Your task to perform on an android device: Clear the shopping cart on newegg.com. Image 0: 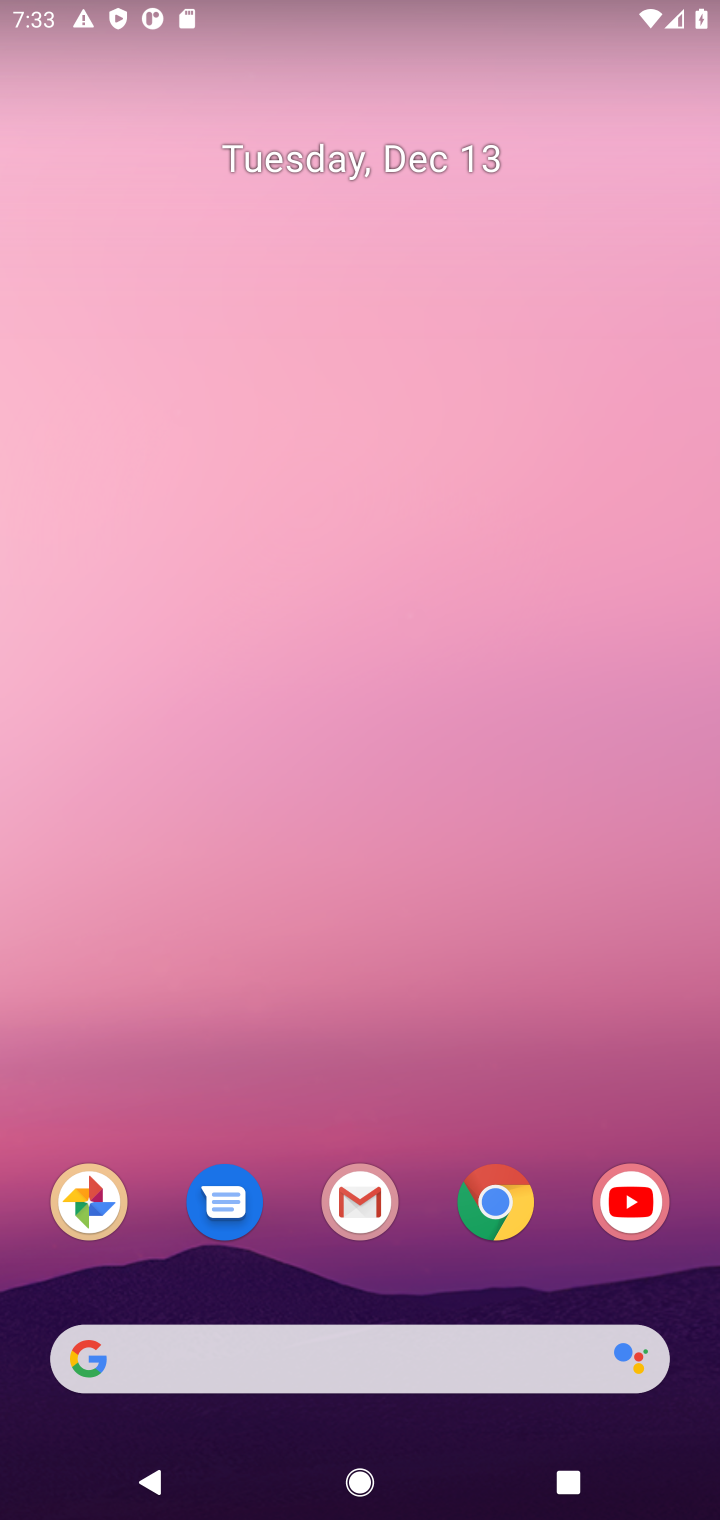
Step 0: click (500, 1211)
Your task to perform on an android device: Clear the shopping cart on newegg.com. Image 1: 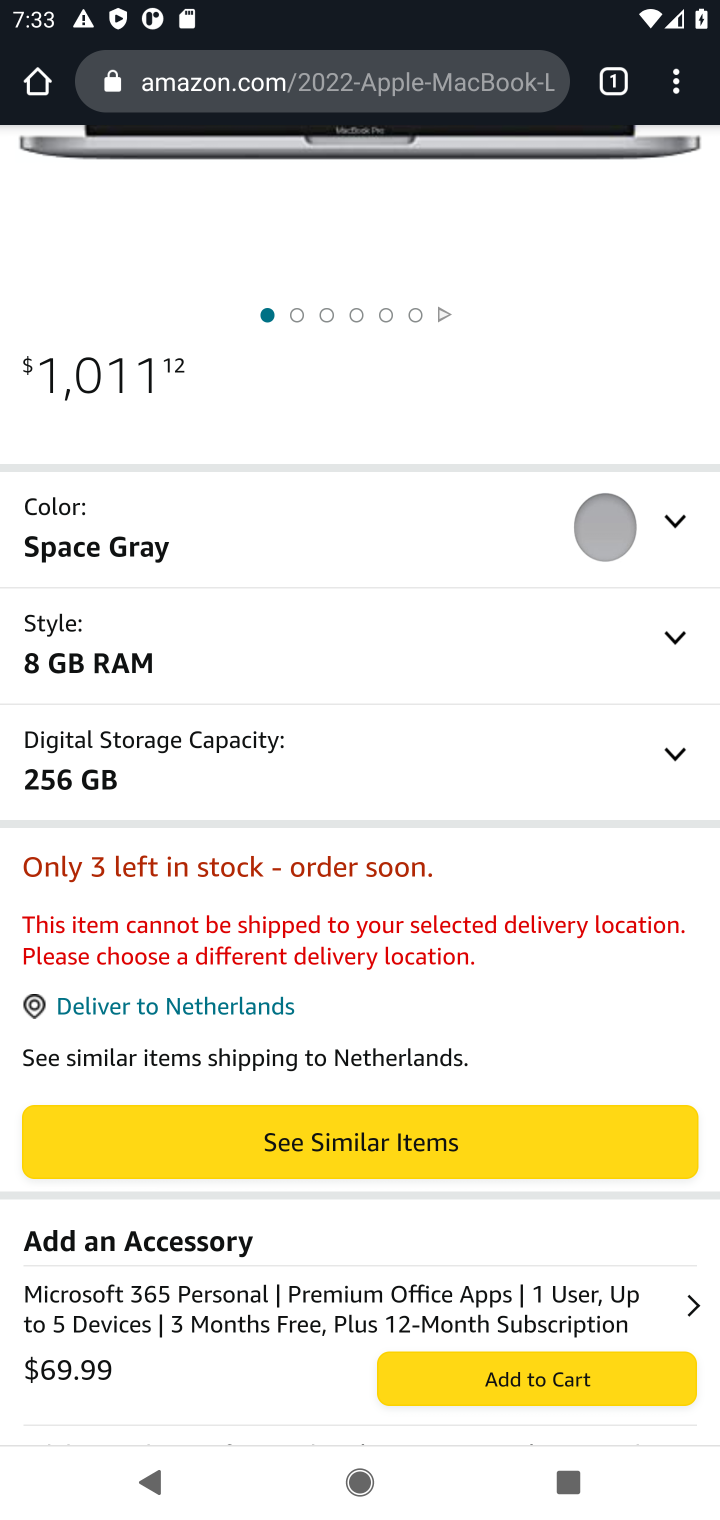
Step 1: click (266, 80)
Your task to perform on an android device: Clear the shopping cart on newegg.com. Image 2: 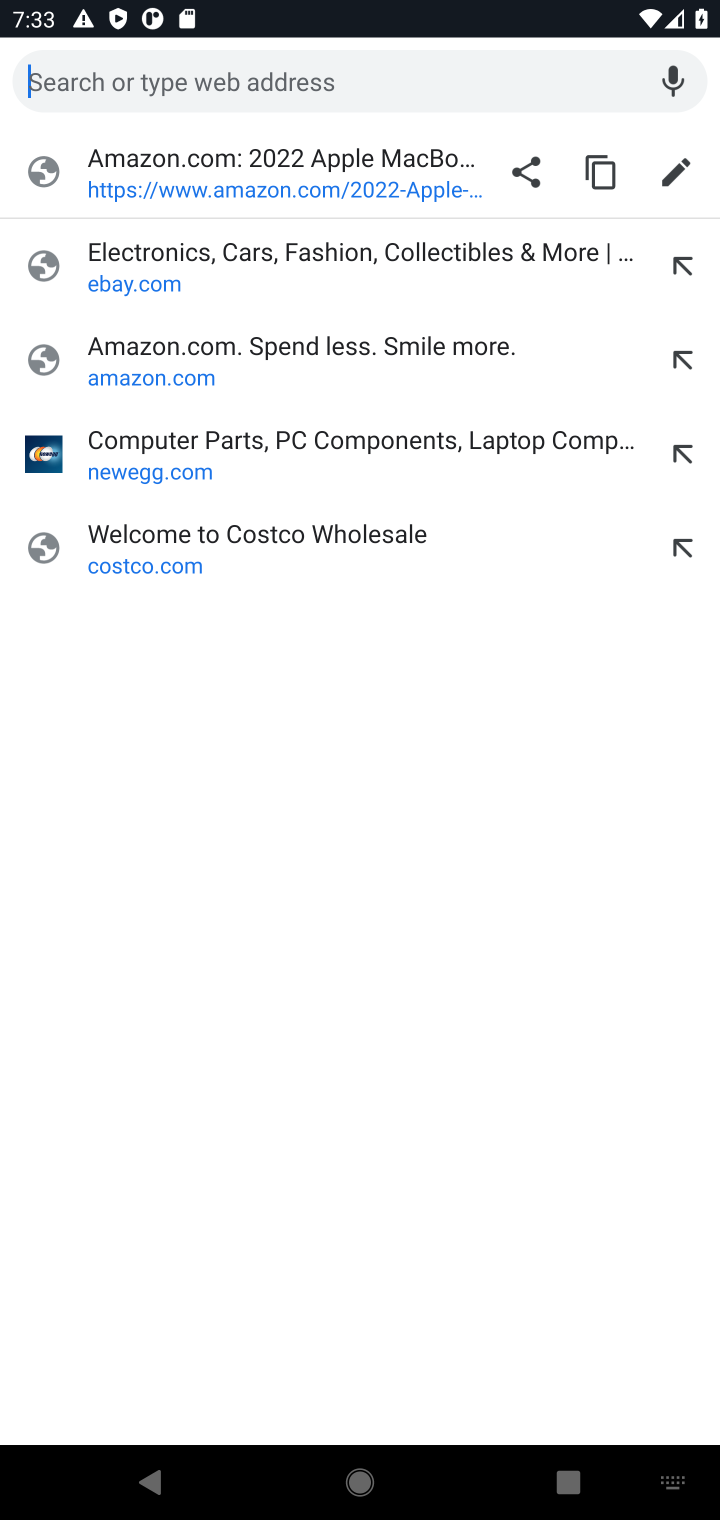
Step 2: click (142, 472)
Your task to perform on an android device: Clear the shopping cart on newegg.com. Image 3: 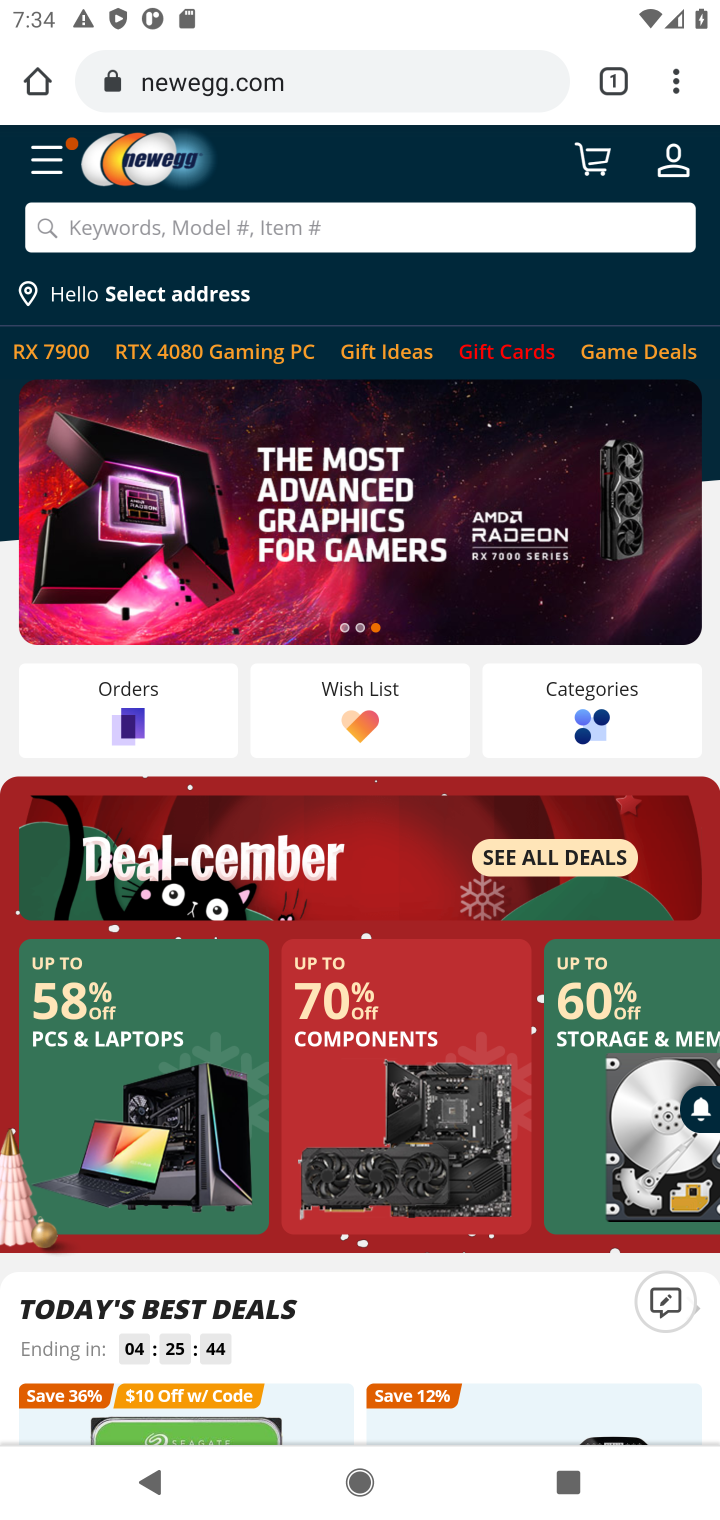
Step 3: click (592, 169)
Your task to perform on an android device: Clear the shopping cart on newegg.com. Image 4: 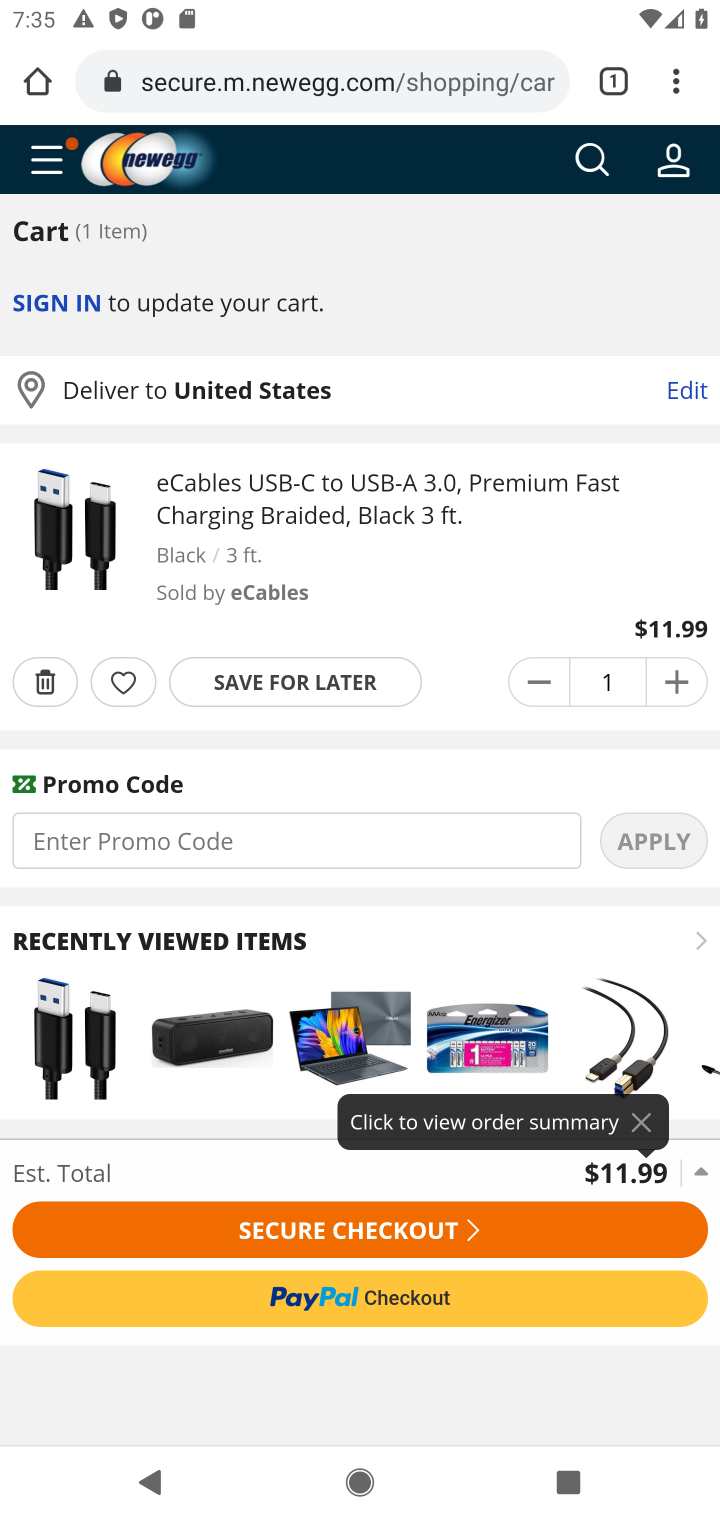
Step 4: click (44, 682)
Your task to perform on an android device: Clear the shopping cart on newegg.com. Image 5: 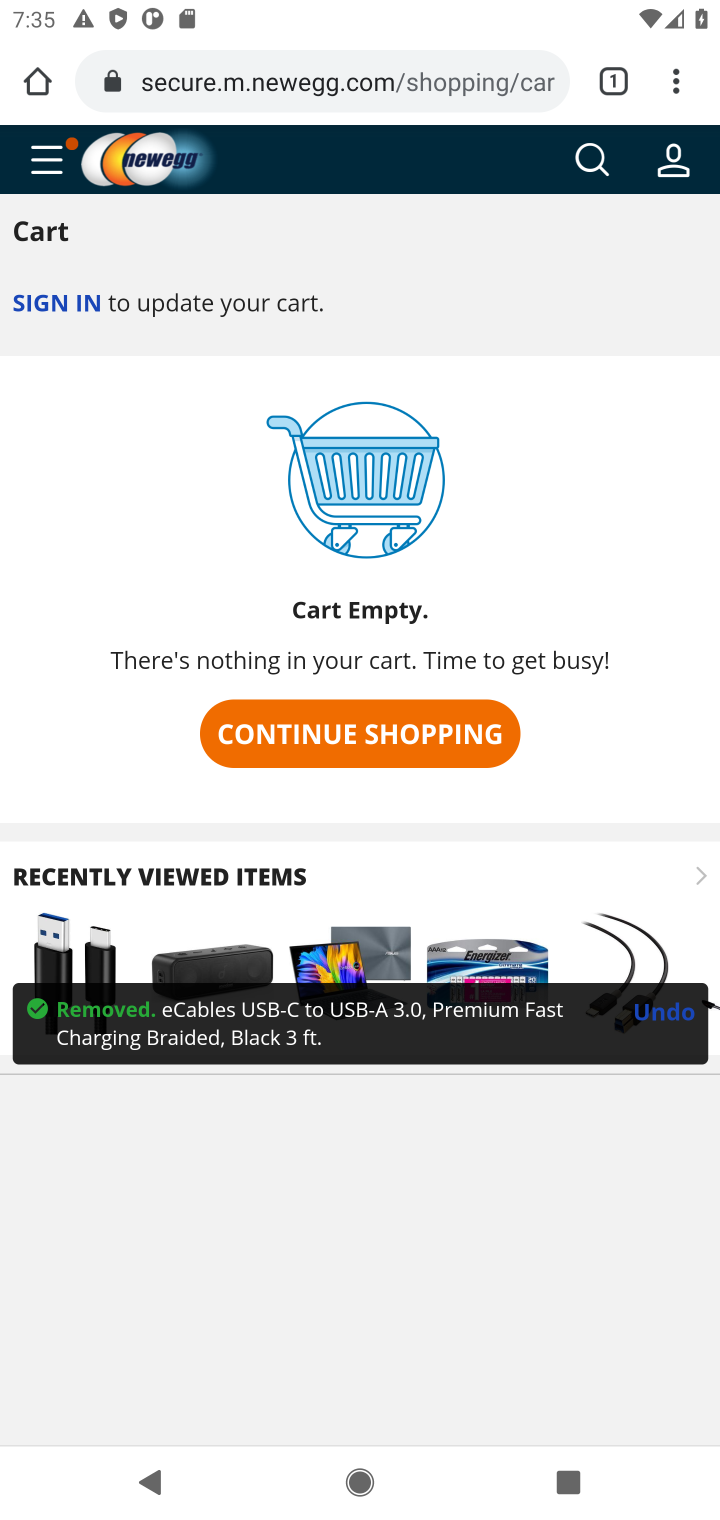
Step 5: task complete